Your task to perform on an android device: turn on sleep mode Image 0: 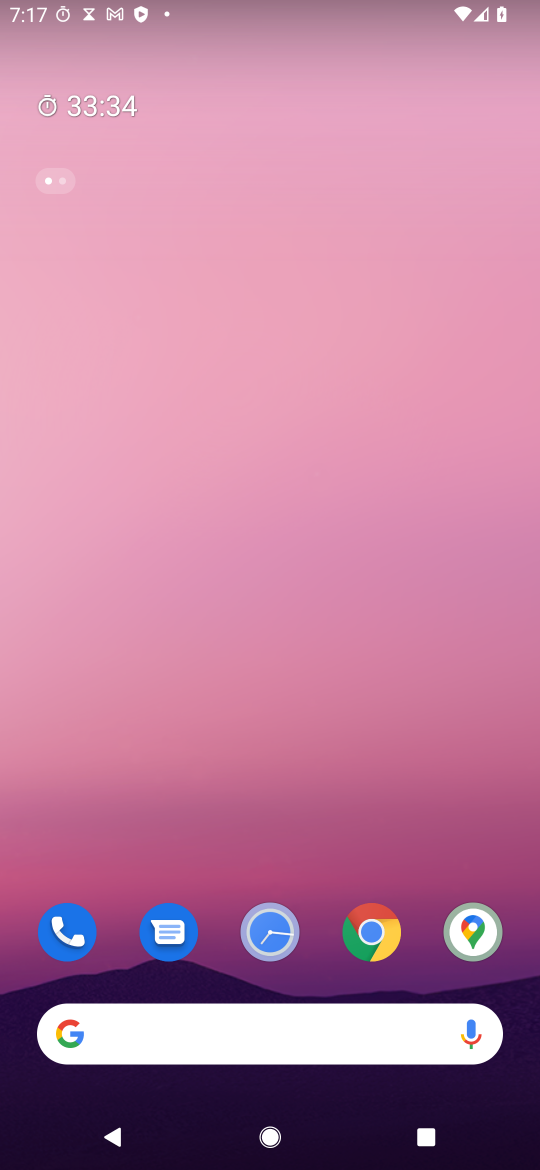
Step 0: drag from (343, 649) to (458, 17)
Your task to perform on an android device: turn on sleep mode Image 1: 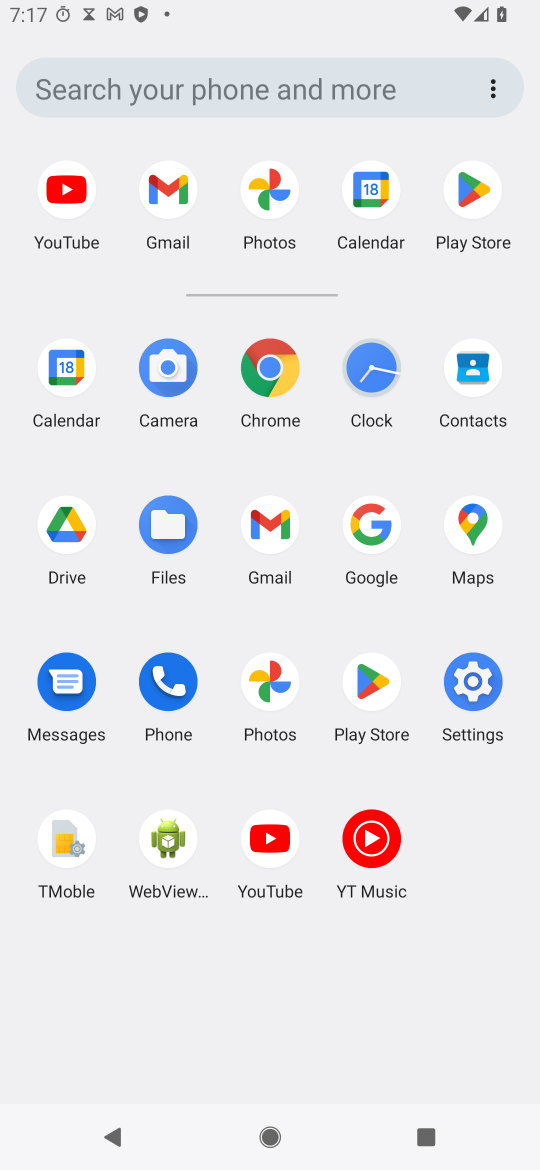
Step 1: click (481, 691)
Your task to perform on an android device: turn on sleep mode Image 2: 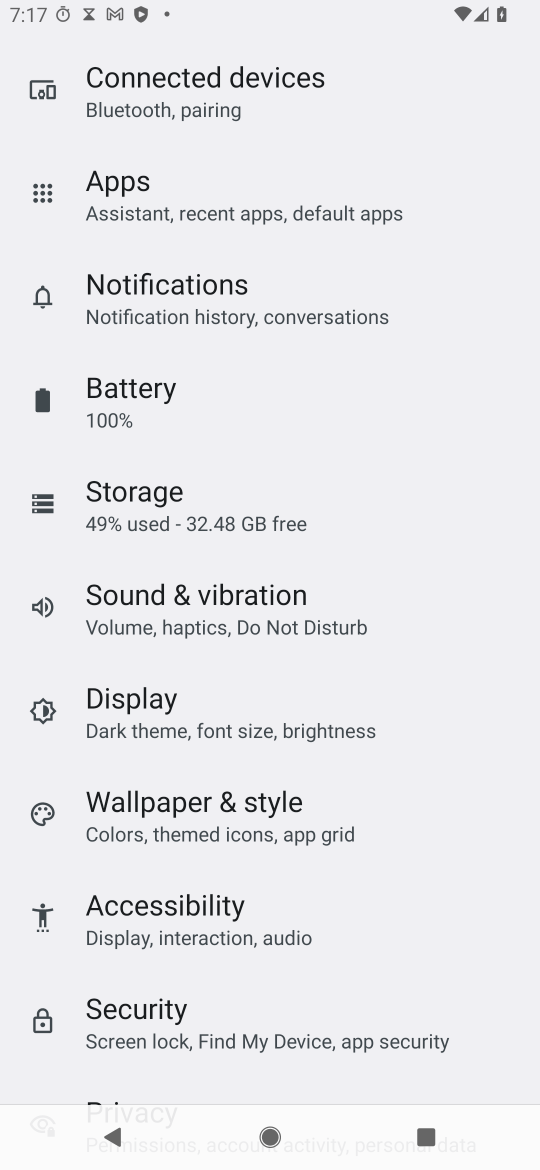
Step 2: drag from (149, 191) to (112, 1058)
Your task to perform on an android device: turn on sleep mode Image 3: 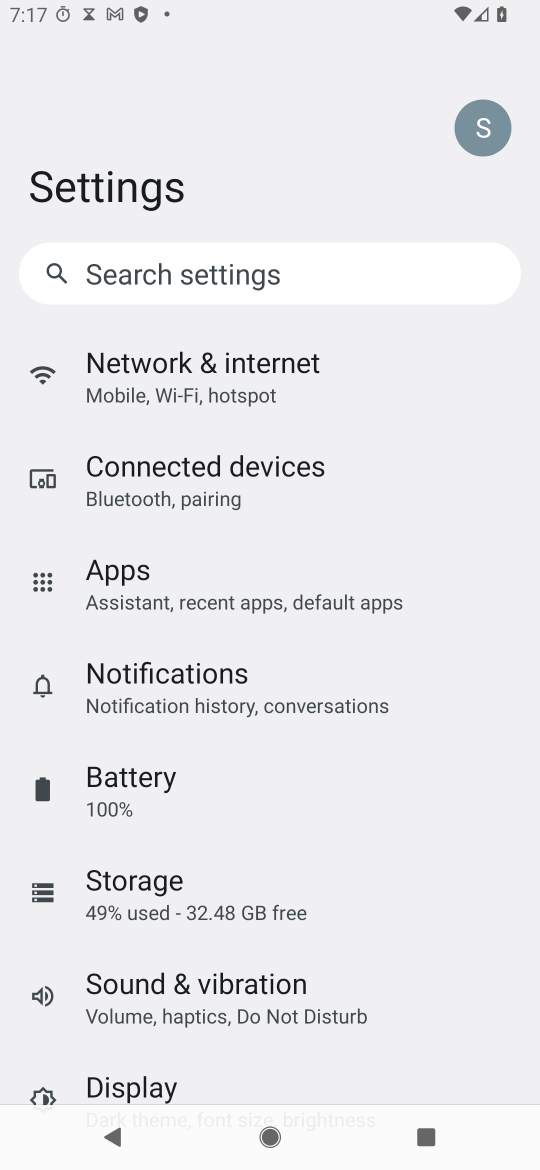
Step 3: click (121, 1071)
Your task to perform on an android device: turn on sleep mode Image 4: 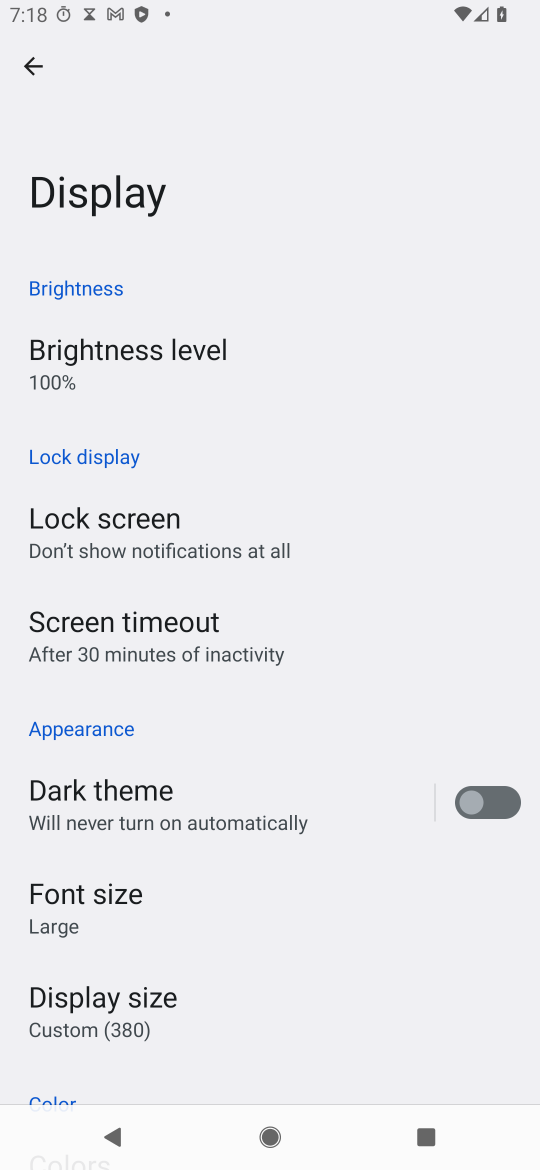
Step 4: task complete